Your task to perform on an android device: open app "Paramount+ | Peak Streaming" (install if not already installed) and enter user name: "fostered@yahoo.com" and password: "strong" Image 0: 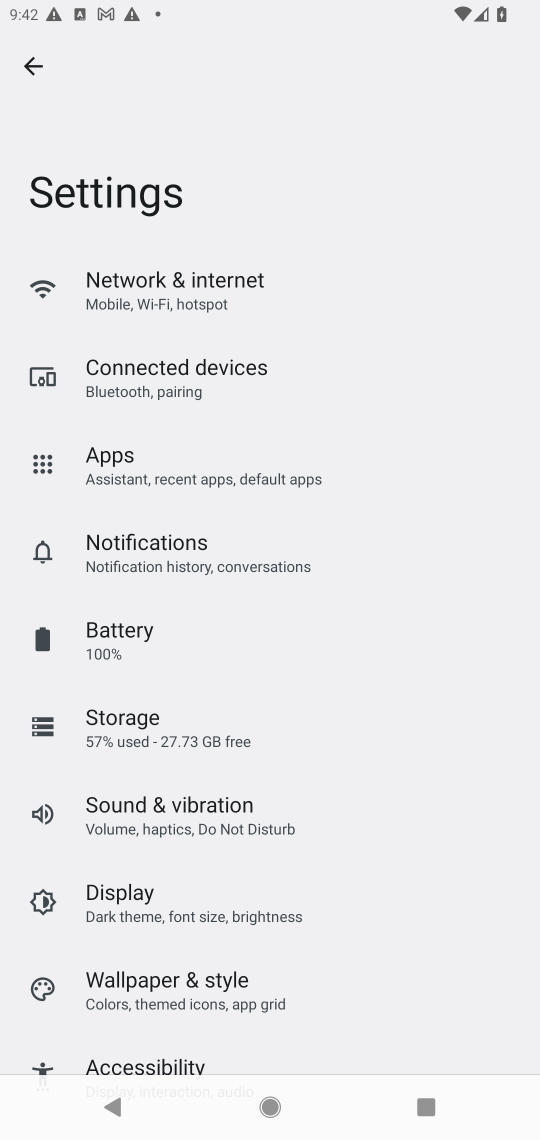
Step 0: press home button
Your task to perform on an android device: open app "Paramount+ | Peak Streaming" (install if not already installed) and enter user name: "fostered@yahoo.com" and password: "strong" Image 1: 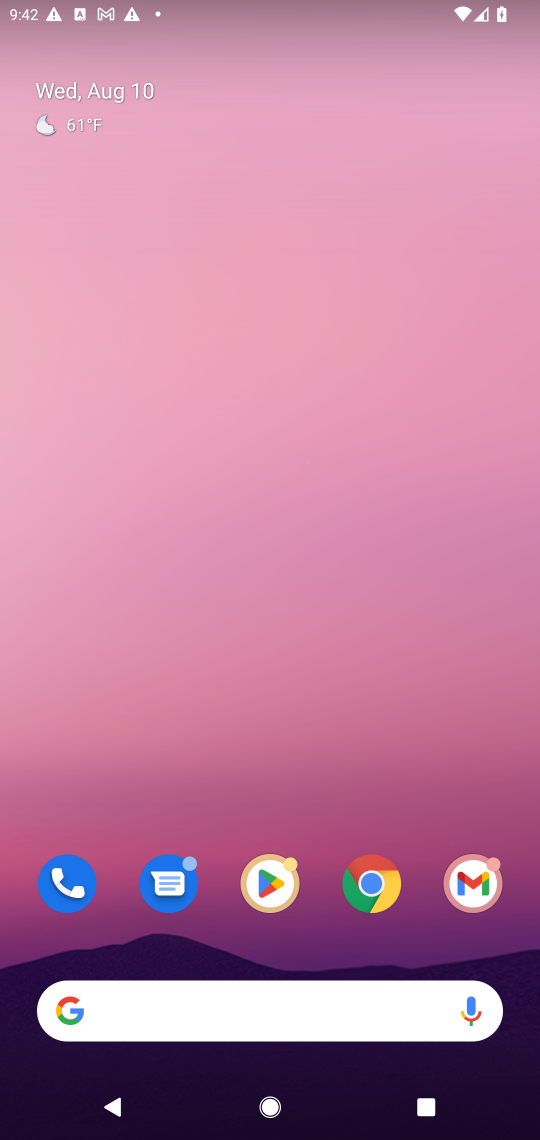
Step 1: click (274, 862)
Your task to perform on an android device: open app "Paramount+ | Peak Streaming" (install if not already installed) and enter user name: "fostered@yahoo.com" and password: "strong" Image 2: 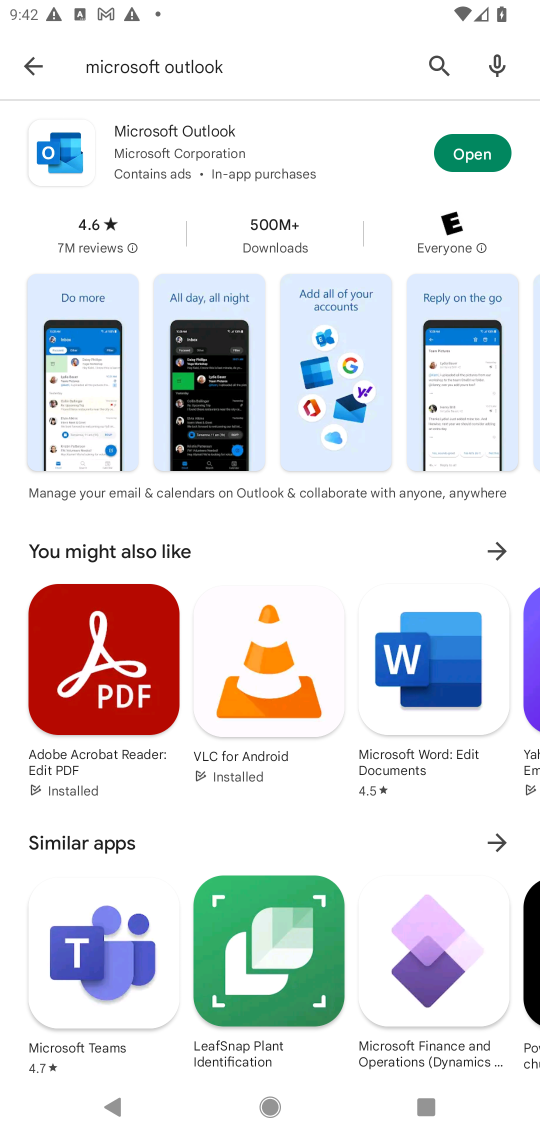
Step 2: click (435, 51)
Your task to perform on an android device: open app "Paramount+ | Peak Streaming" (install if not already installed) and enter user name: "fostered@yahoo.com" and password: "strong" Image 3: 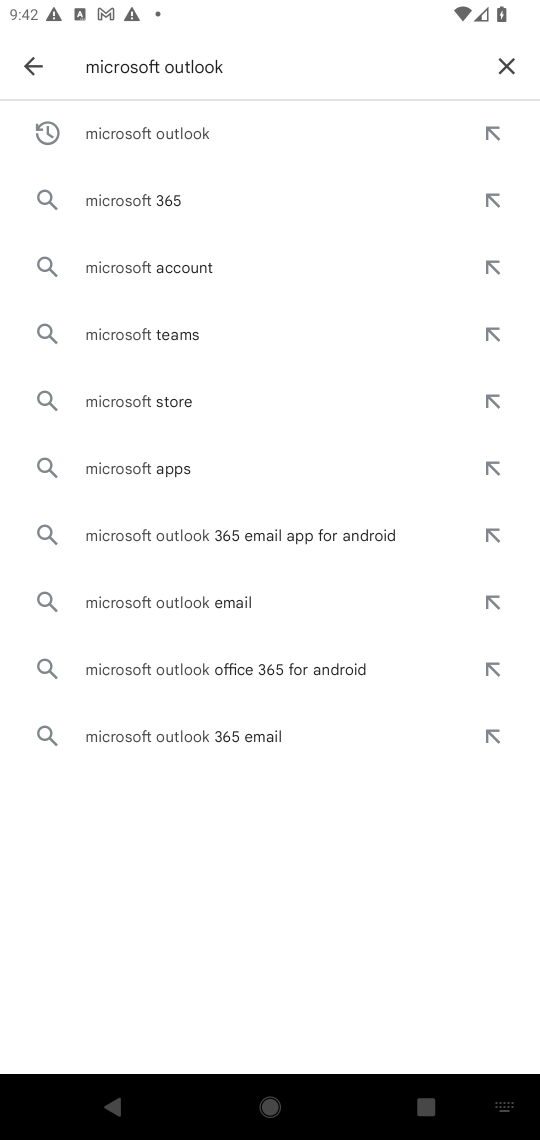
Step 3: click (493, 58)
Your task to perform on an android device: open app "Paramount+ | Peak Streaming" (install if not already installed) and enter user name: "fostered@yahoo.com" and password: "strong" Image 4: 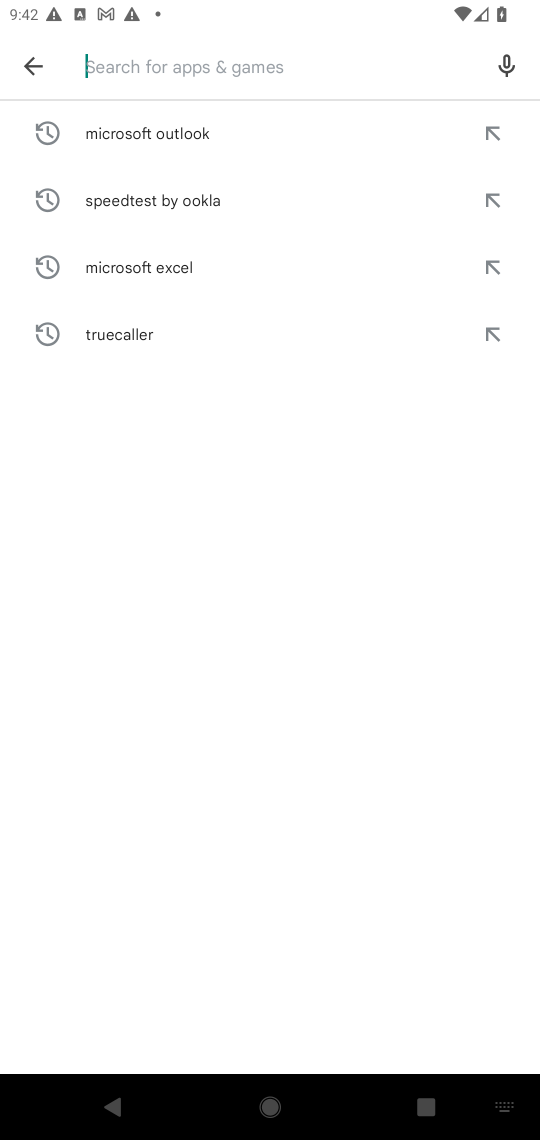
Step 4: type "Paramount+ | Peak Streaming"
Your task to perform on an android device: open app "Paramount+ | Peak Streaming" (install if not already installed) and enter user name: "fostered@yahoo.com" and password: "strong" Image 5: 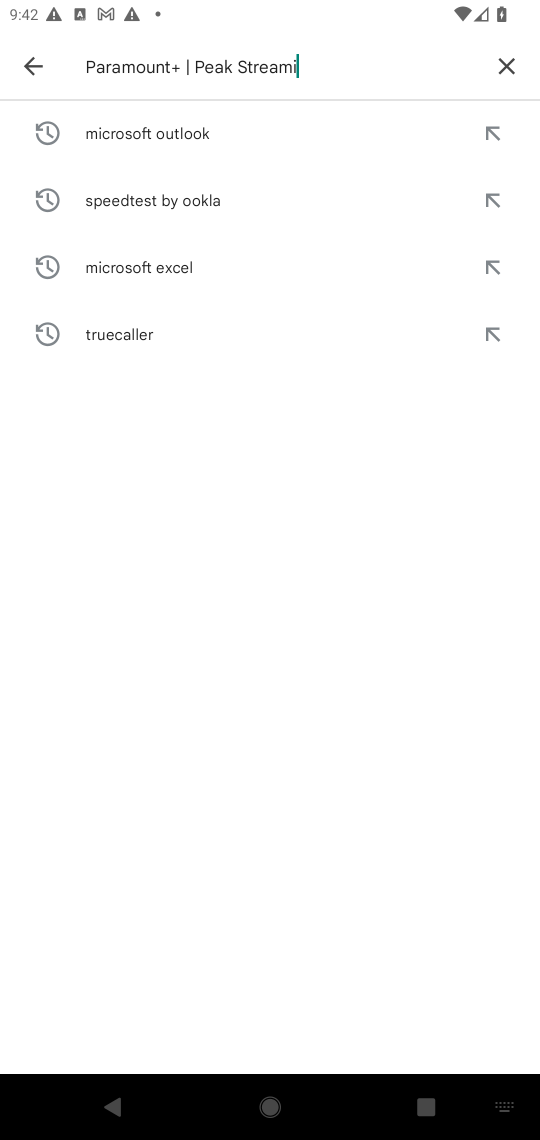
Step 5: type ""
Your task to perform on an android device: open app "Paramount+ | Peak Streaming" (install if not already installed) and enter user name: "fostered@yahoo.com" and password: "strong" Image 6: 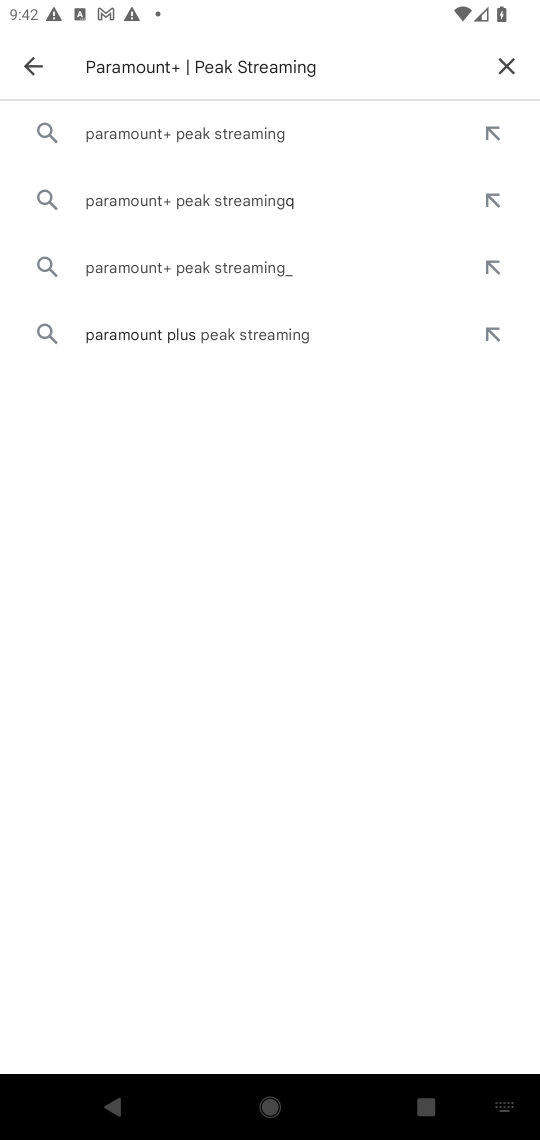
Step 6: click (241, 132)
Your task to perform on an android device: open app "Paramount+ | Peak Streaming" (install if not already installed) and enter user name: "fostered@yahoo.com" and password: "strong" Image 7: 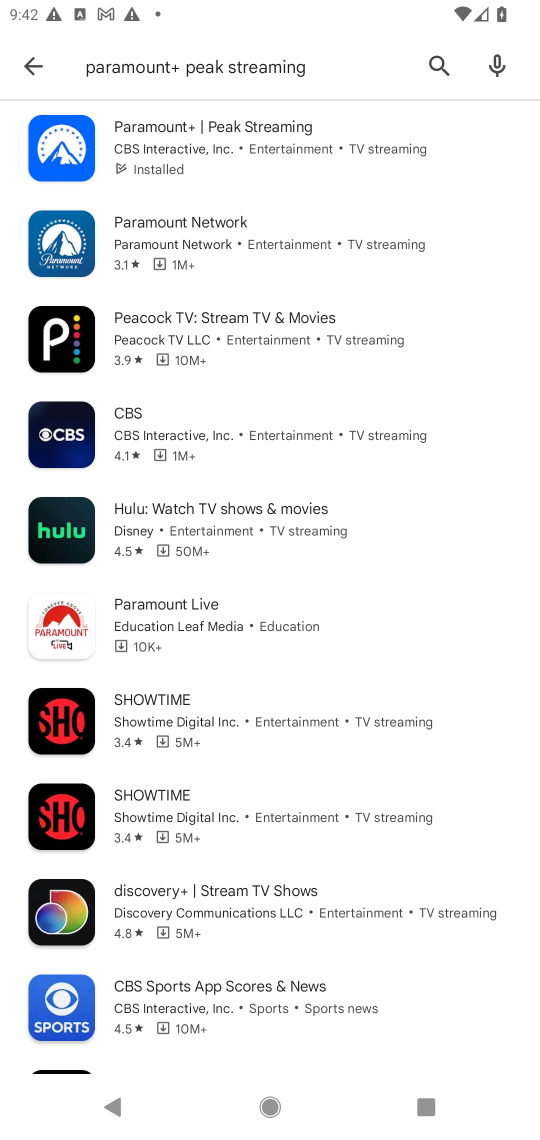
Step 7: click (241, 132)
Your task to perform on an android device: open app "Paramount+ | Peak Streaming" (install if not already installed) and enter user name: "fostered@yahoo.com" and password: "strong" Image 8: 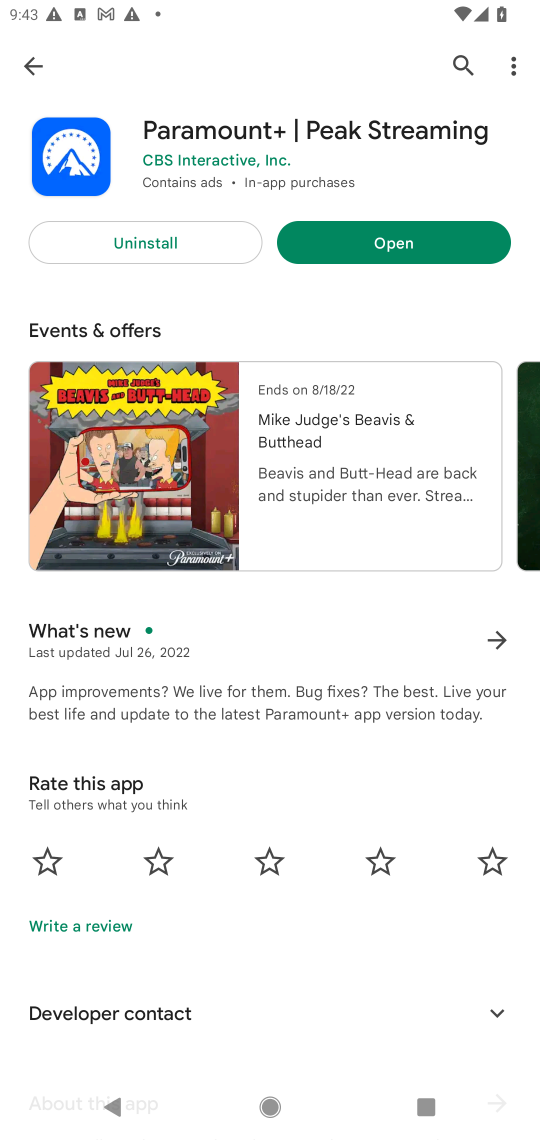
Step 8: click (348, 245)
Your task to perform on an android device: open app "Paramount+ | Peak Streaming" (install if not already installed) and enter user name: "fostered@yahoo.com" and password: "strong" Image 9: 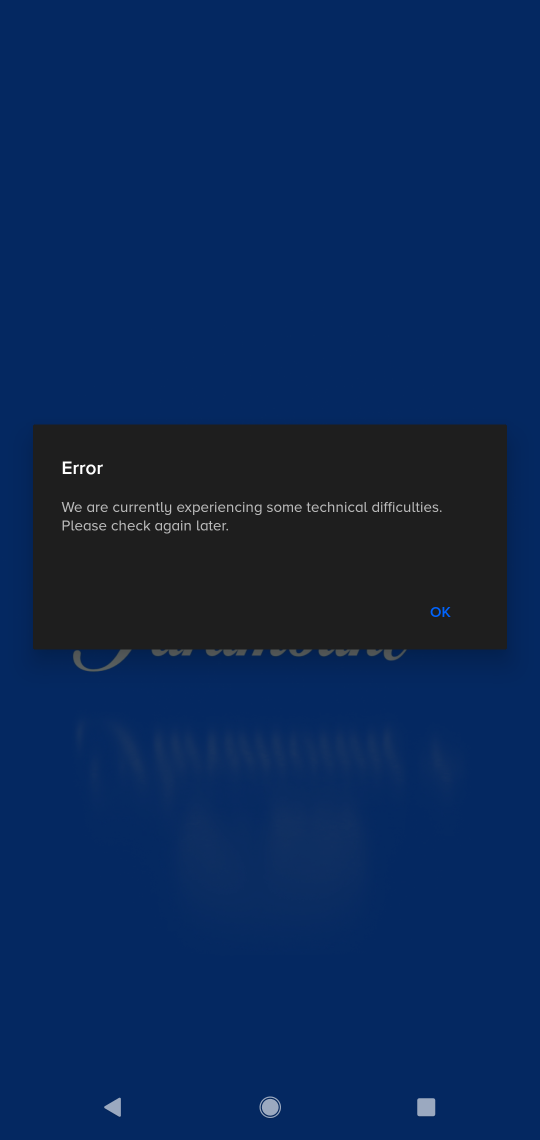
Step 9: task complete